Your task to perform on an android device: Open settings Image 0: 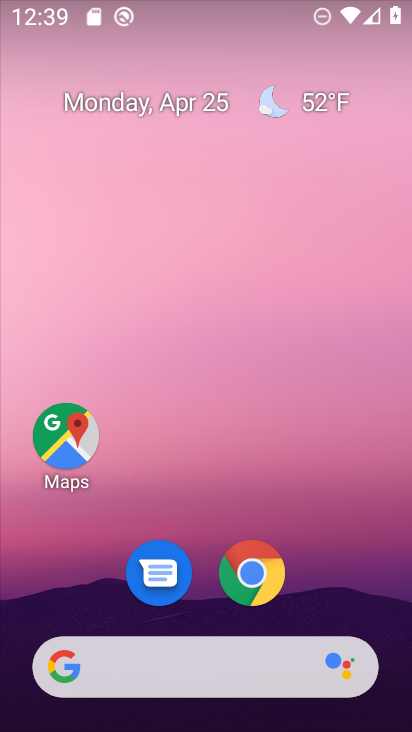
Step 0: drag from (215, 725) to (215, 130)
Your task to perform on an android device: Open settings Image 1: 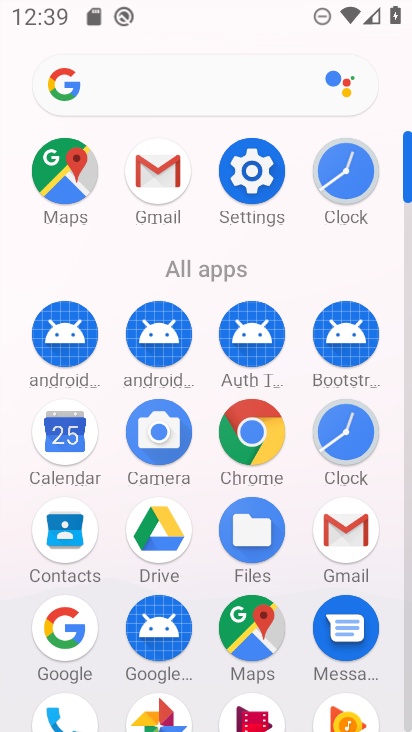
Step 1: click (253, 173)
Your task to perform on an android device: Open settings Image 2: 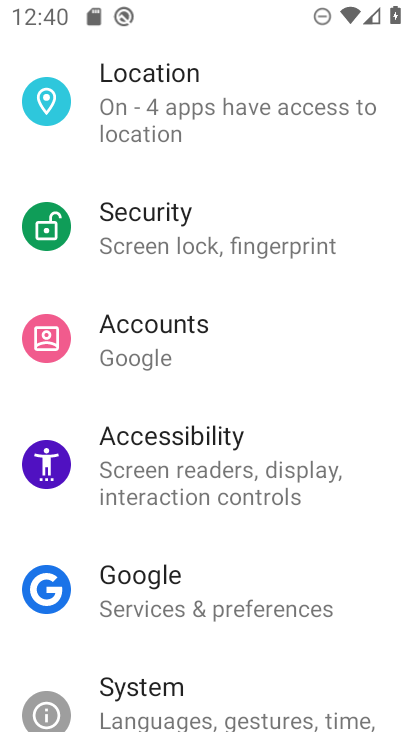
Step 2: task complete